Your task to perform on an android device: change notification settings in the gmail app Image 0: 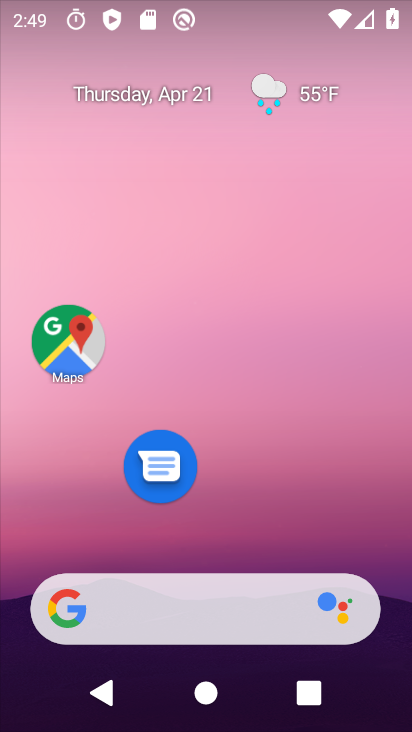
Step 0: drag from (302, 533) to (305, 38)
Your task to perform on an android device: change notification settings in the gmail app Image 1: 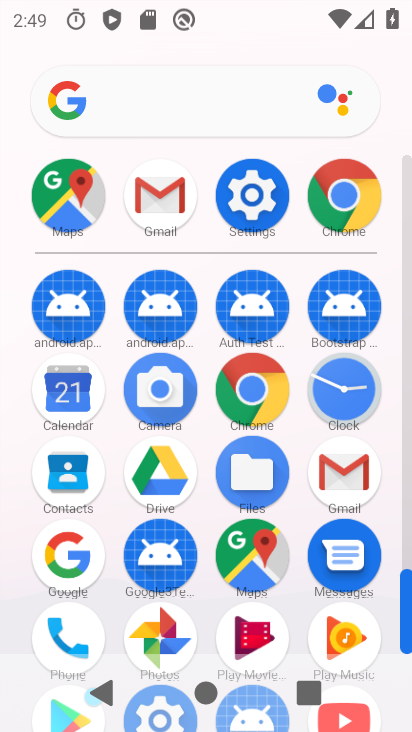
Step 1: click (344, 453)
Your task to perform on an android device: change notification settings in the gmail app Image 2: 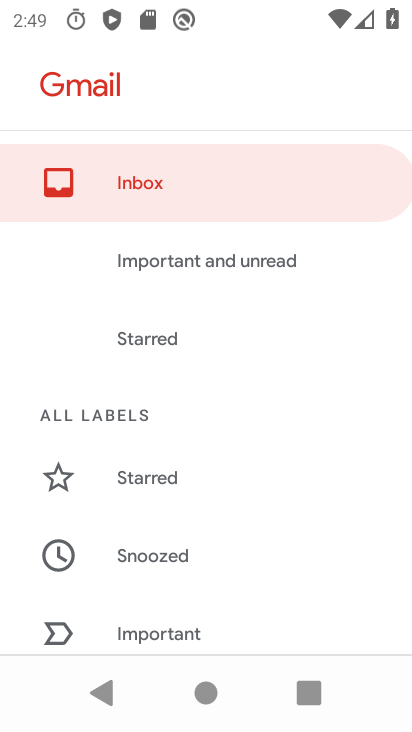
Step 2: drag from (301, 628) to (276, 130)
Your task to perform on an android device: change notification settings in the gmail app Image 3: 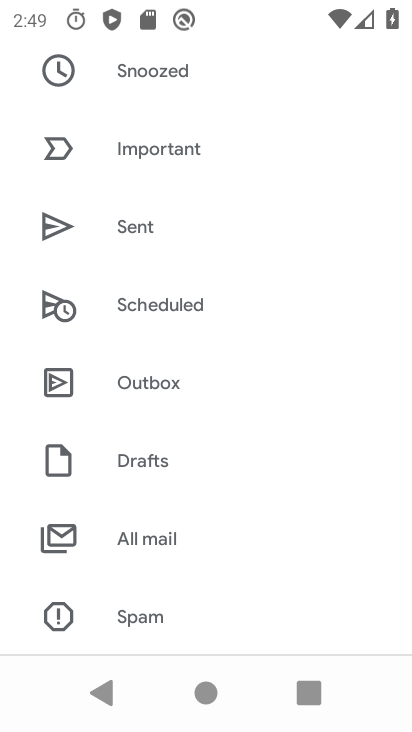
Step 3: drag from (247, 635) to (242, 160)
Your task to perform on an android device: change notification settings in the gmail app Image 4: 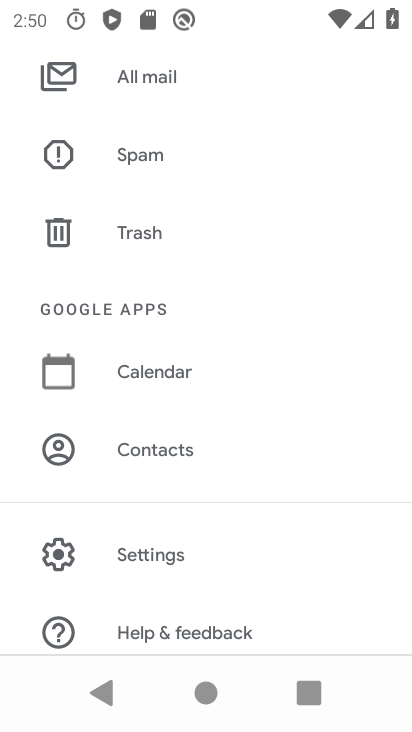
Step 4: click (176, 567)
Your task to perform on an android device: change notification settings in the gmail app Image 5: 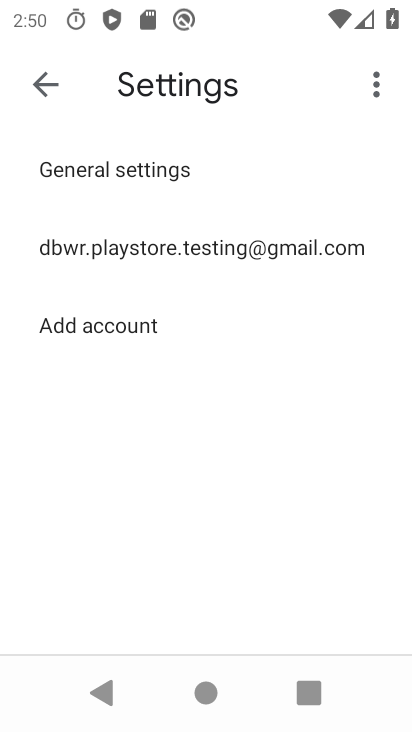
Step 5: click (242, 261)
Your task to perform on an android device: change notification settings in the gmail app Image 6: 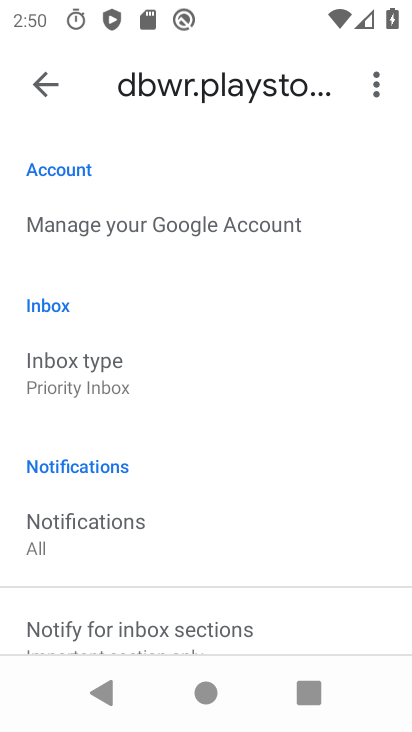
Step 6: drag from (220, 629) to (217, 309)
Your task to perform on an android device: change notification settings in the gmail app Image 7: 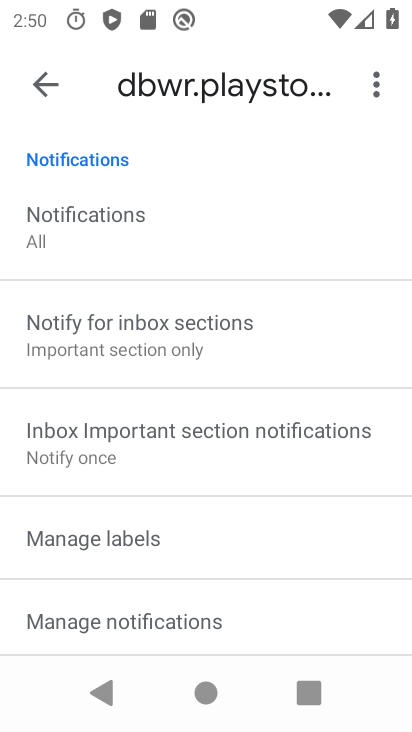
Step 7: click (175, 591)
Your task to perform on an android device: change notification settings in the gmail app Image 8: 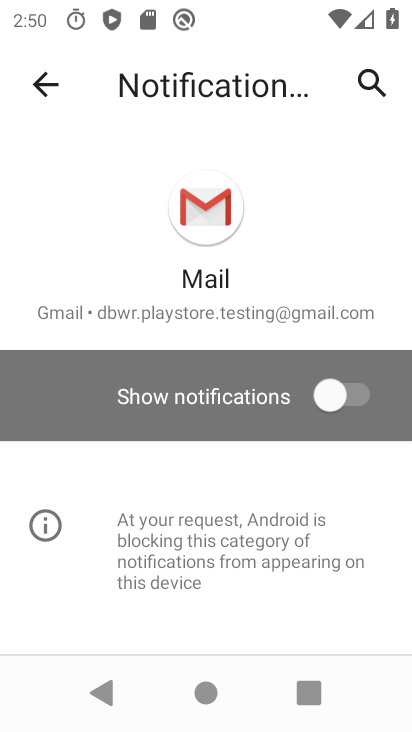
Step 8: click (355, 385)
Your task to perform on an android device: change notification settings in the gmail app Image 9: 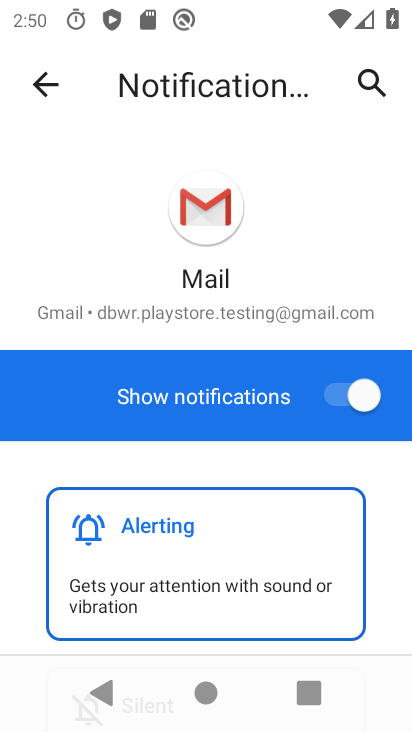
Step 9: task complete